Your task to perform on an android device: Open calendar and show me the third week of next month Image 0: 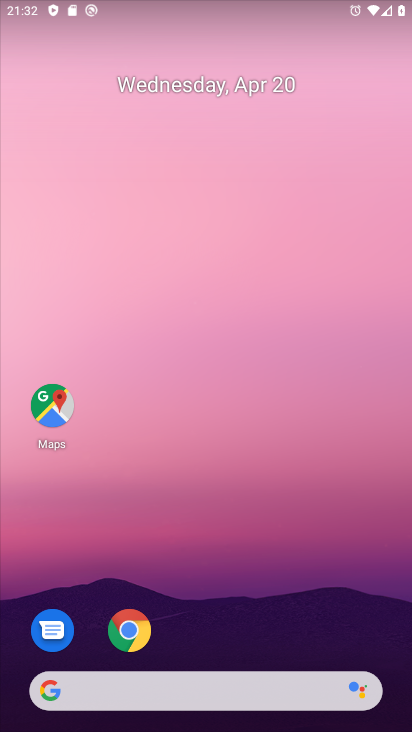
Step 0: drag from (238, 393) to (229, 152)
Your task to perform on an android device: Open calendar and show me the third week of next month Image 1: 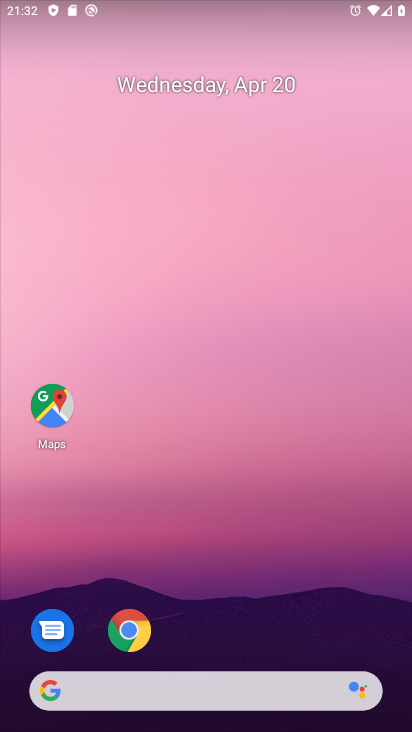
Step 1: drag from (228, 540) to (165, 65)
Your task to perform on an android device: Open calendar and show me the third week of next month Image 2: 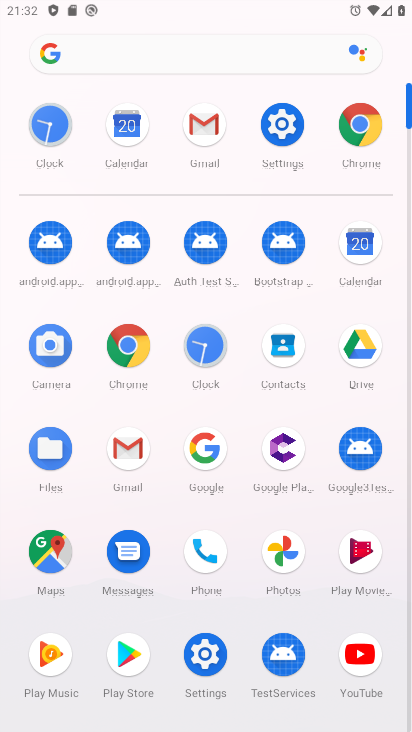
Step 2: click (364, 247)
Your task to perform on an android device: Open calendar and show me the third week of next month Image 3: 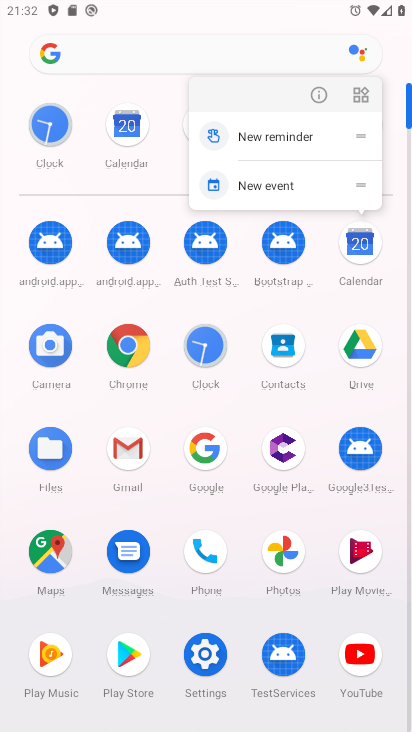
Step 3: click (363, 247)
Your task to perform on an android device: Open calendar and show me the third week of next month Image 4: 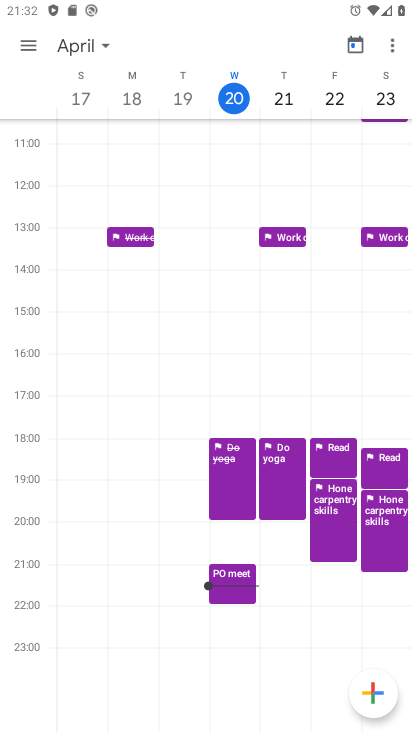
Step 4: click (75, 50)
Your task to perform on an android device: Open calendar and show me the third week of next month Image 5: 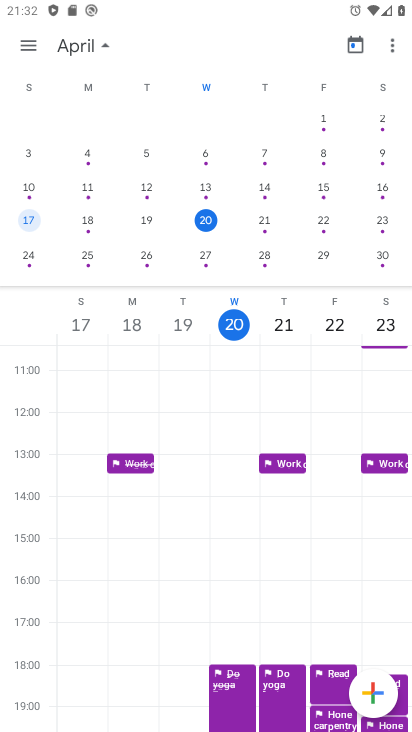
Step 5: click (75, 50)
Your task to perform on an android device: Open calendar and show me the third week of next month Image 6: 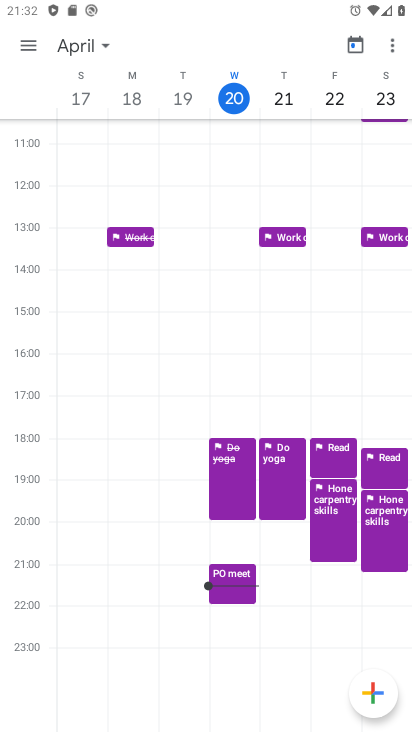
Step 6: click (105, 38)
Your task to perform on an android device: Open calendar and show me the third week of next month Image 7: 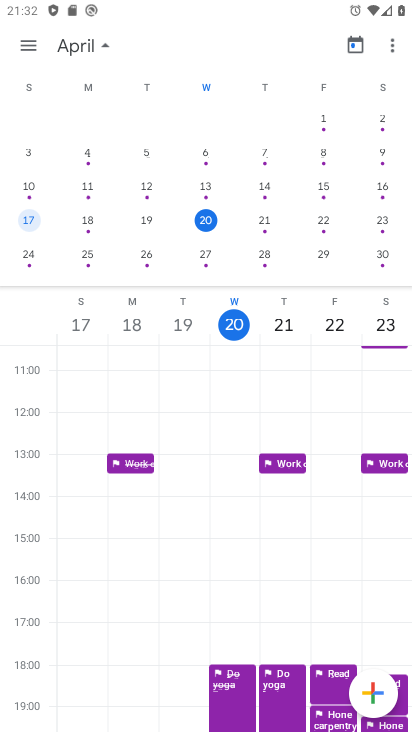
Step 7: drag from (327, 179) to (37, 154)
Your task to perform on an android device: Open calendar and show me the third week of next month Image 8: 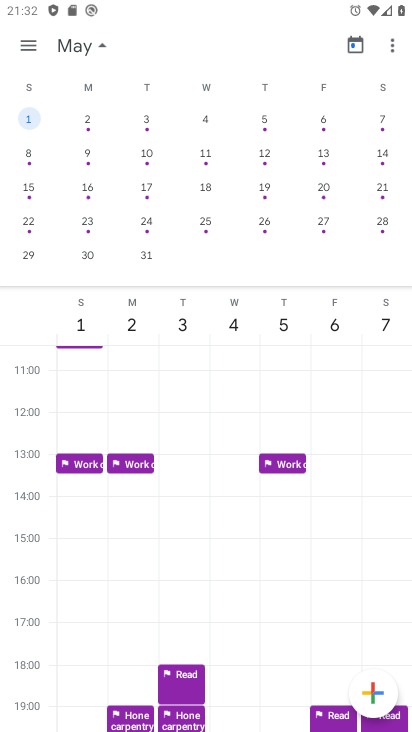
Step 8: click (28, 193)
Your task to perform on an android device: Open calendar and show me the third week of next month Image 9: 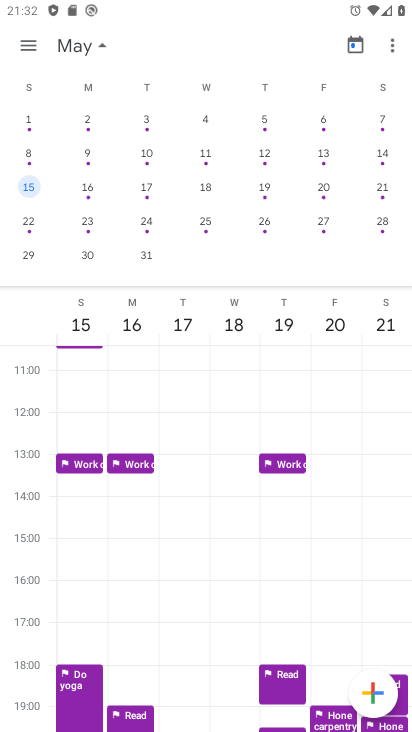
Step 9: task complete